Your task to perform on an android device: Open Amazon Image 0: 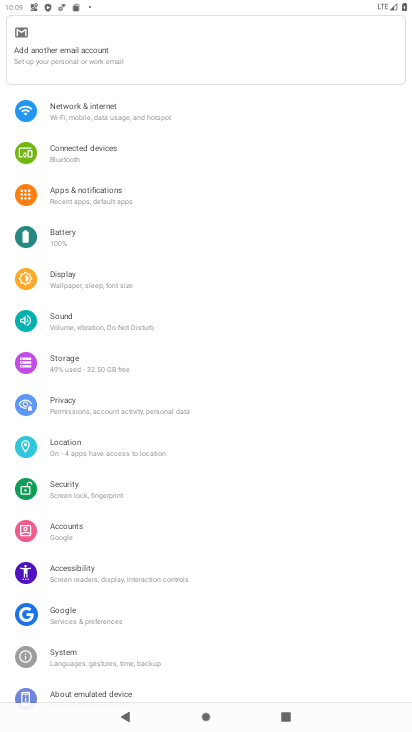
Step 0: press home button
Your task to perform on an android device: Open Amazon Image 1: 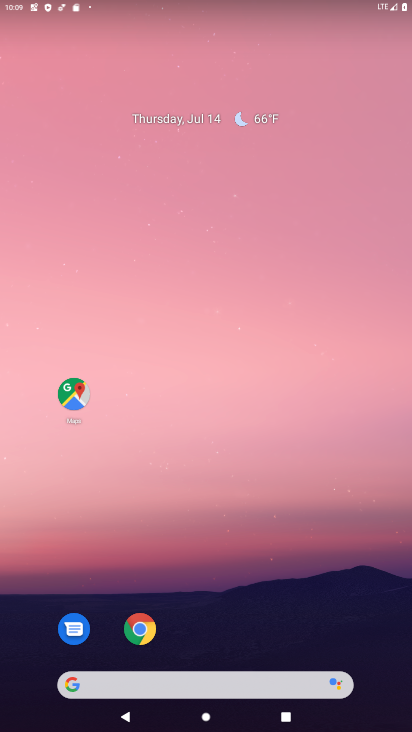
Step 1: click (74, 690)
Your task to perform on an android device: Open Amazon Image 2: 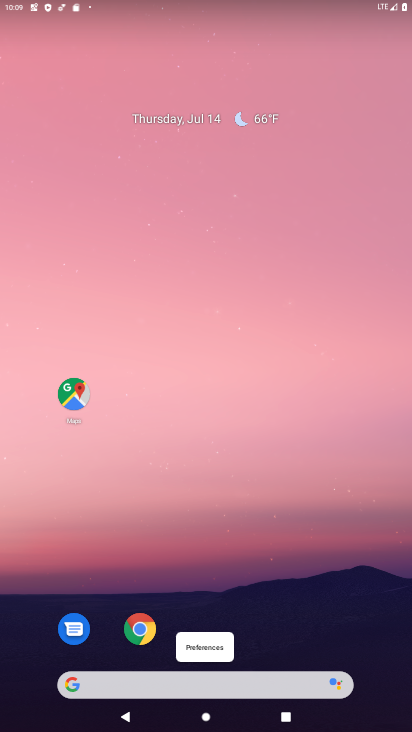
Step 2: click (100, 690)
Your task to perform on an android device: Open Amazon Image 3: 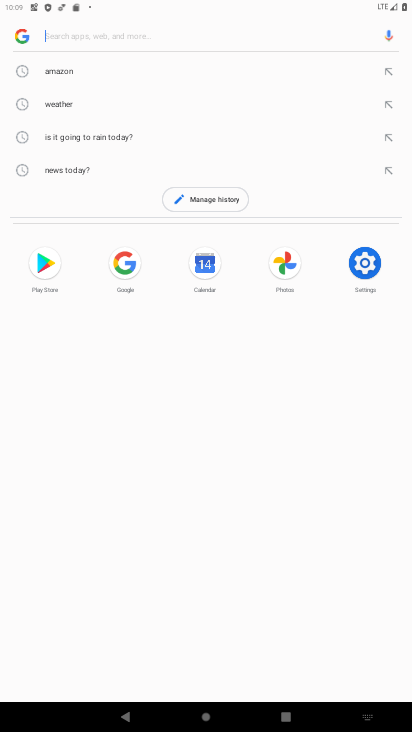
Step 3: type "Amazon"
Your task to perform on an android device: Open Amazon Image 4: 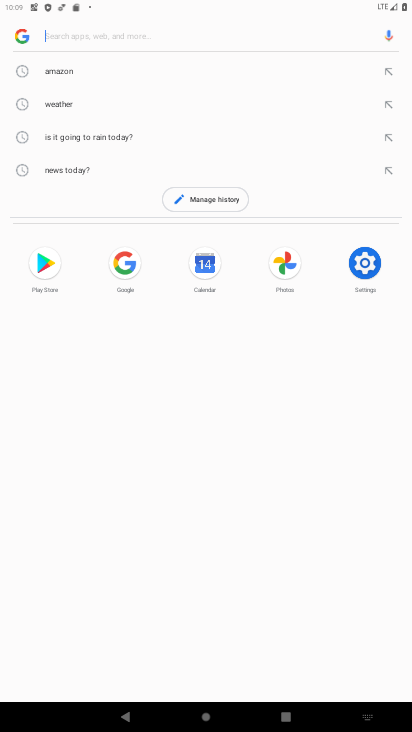
Step 4: click (63, 37)
Your task to perform on an android device: Open Amazon Image 5: 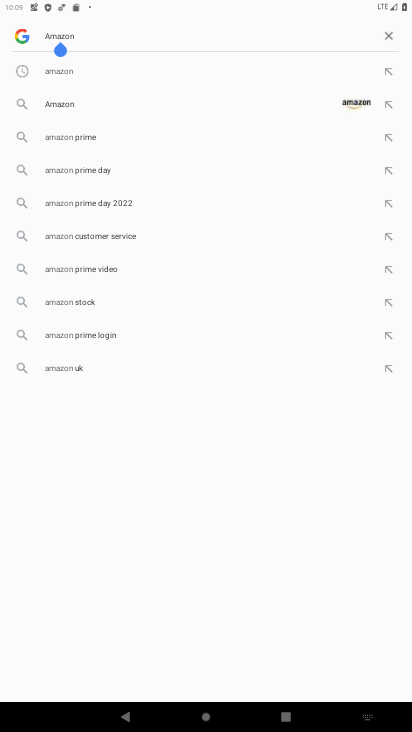
Step 5: click (354, 101)
Your task to perform on an android device: Open Amazon Image 6: 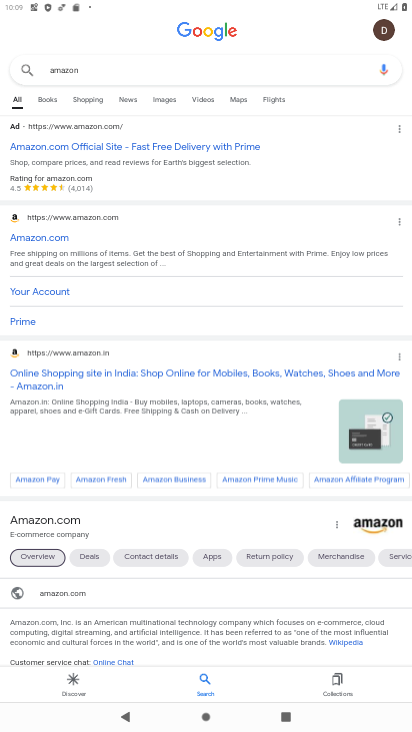
Step 6: click (45, 238)
Your task to perform on an android device: Open Amazon Image 7: 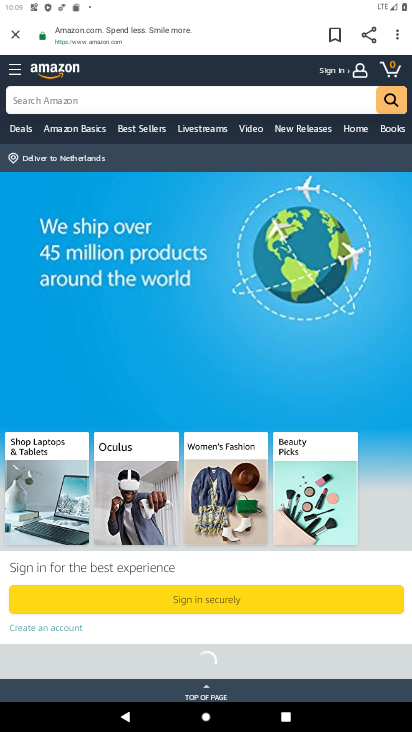
Step 7: task complete